Your task to perform on an android device: Go to internet settings Image 0: 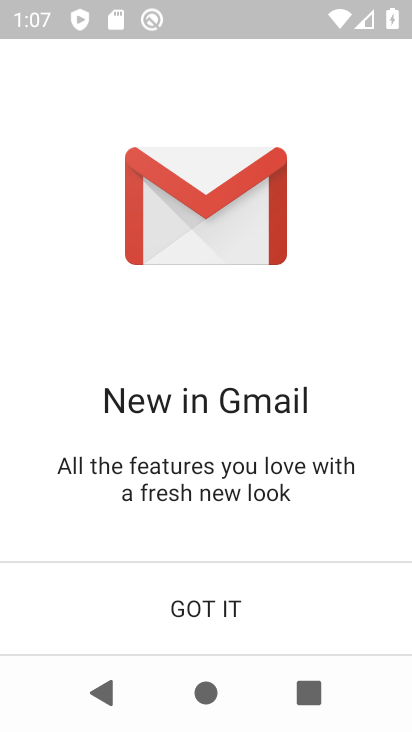
Step 0: click (225, 600)
Your task to perform on an android device: Go to internet settings Image 1: 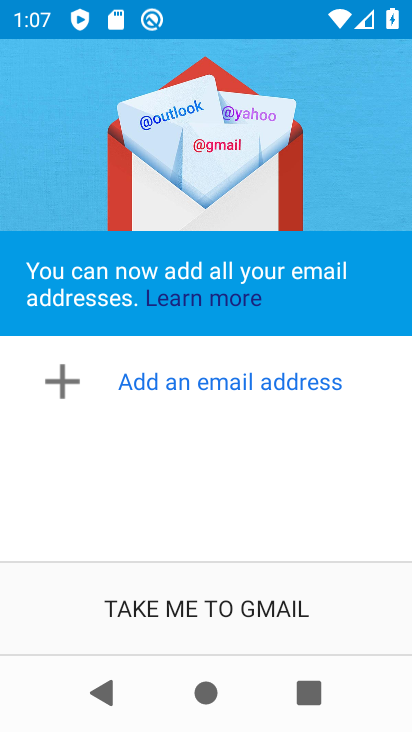
Step 1: click (231, 603)
Your task to perform on an android device: Go to internet settings Image 2: 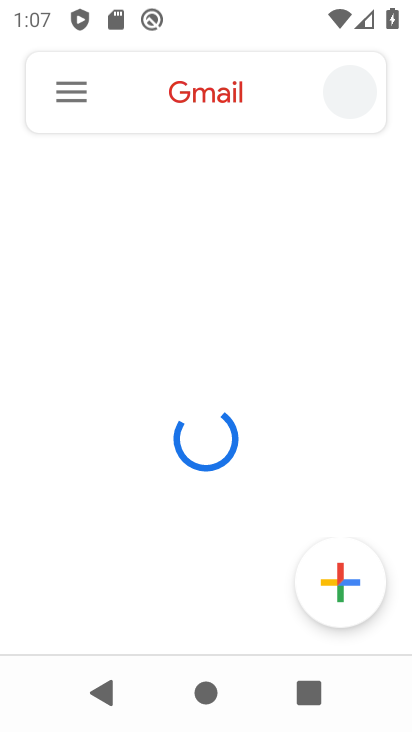
Step 2: press home button
Your task to perform on an android device: Go to internet settings Image 3: 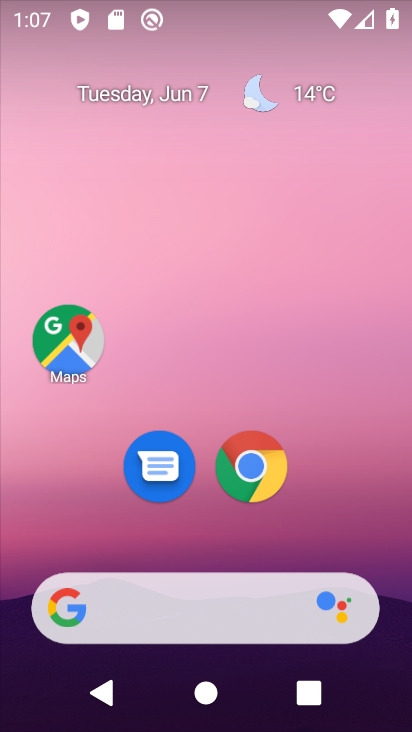
Step 3: drag from (199, 512) to (252, 46)
Your task to perform on an android device: Go to internet settings Image 4: 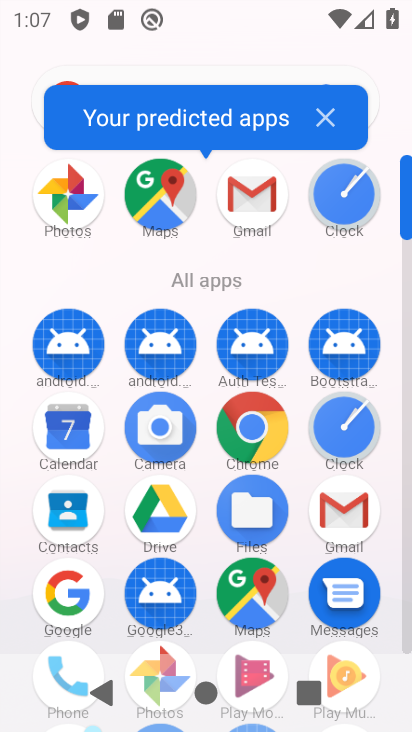
Step 4: drag from (195, 572) to (268, 79)
Your task to perform on an android device: Go to internet settings Image 5: 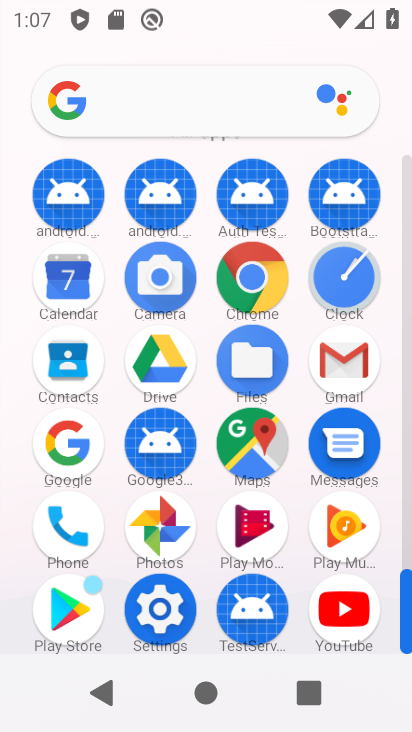
Step 5: click (161, 611)
Your task to perform on an android device: Go to internet settings Image 6: 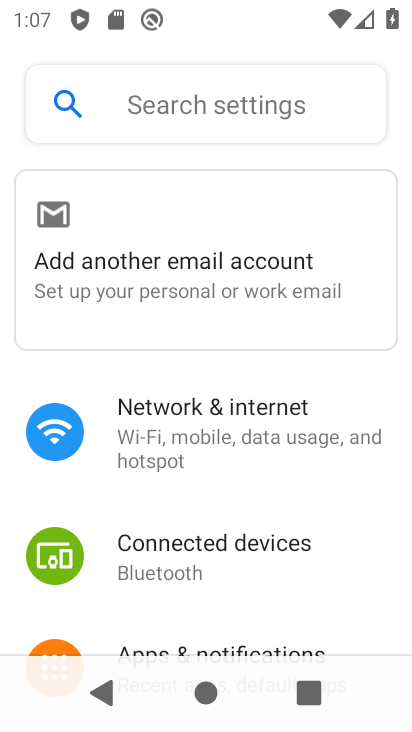
Step 6: click (185, 237)
Your task to perform on an android device: Go to internet settings Image 7: 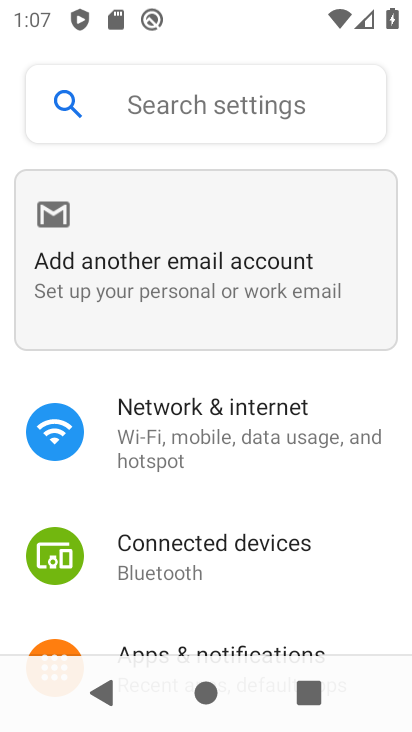
Step 7: click (199, 451)
Your task to perform on an android device: Go to internet settings Image 8: 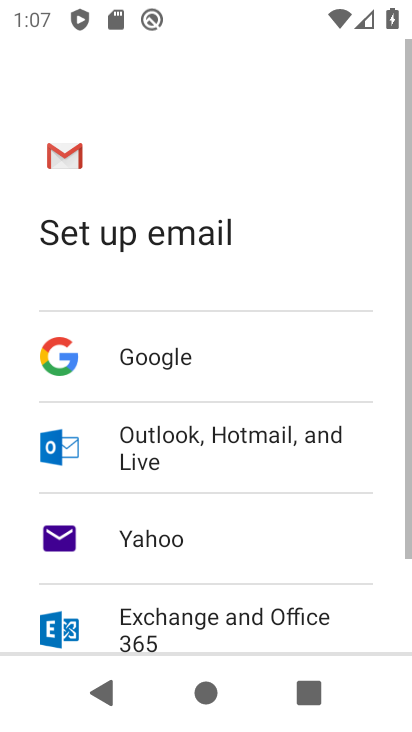
Step 8: task complete